Your task to perform on an android device: set default search engine in the chrome app Image 0: 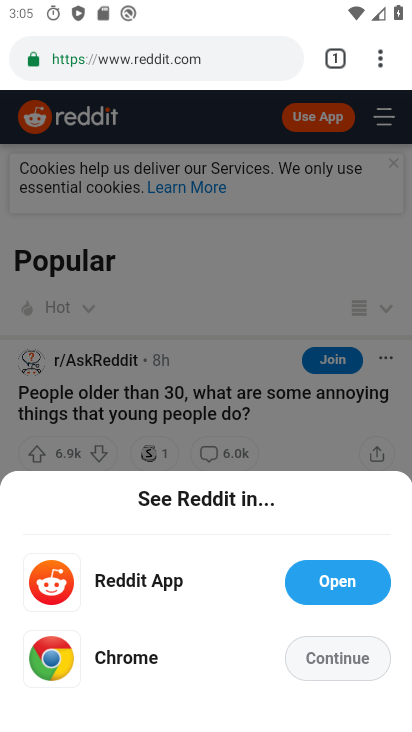
Step 0: press back button
Your task to perform on an android device: set default search engine in the chrome app Image 1: 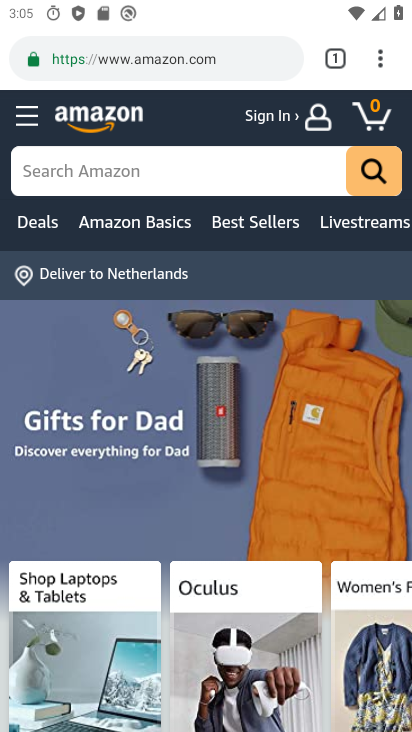
Step 1: drag from (377, 56) to (178, 648)
Your task to perform on an android device: set default search engine in the chrome app Image 2: 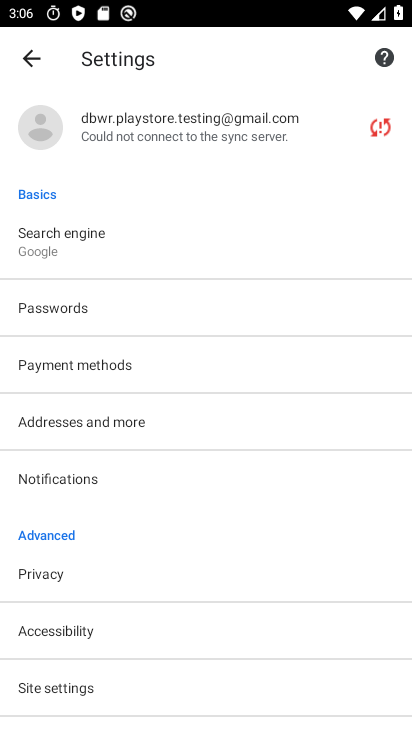
Step 2: click (115, 241)
Your task to perform on an android device: set default search engine in the chrome app Image 3: 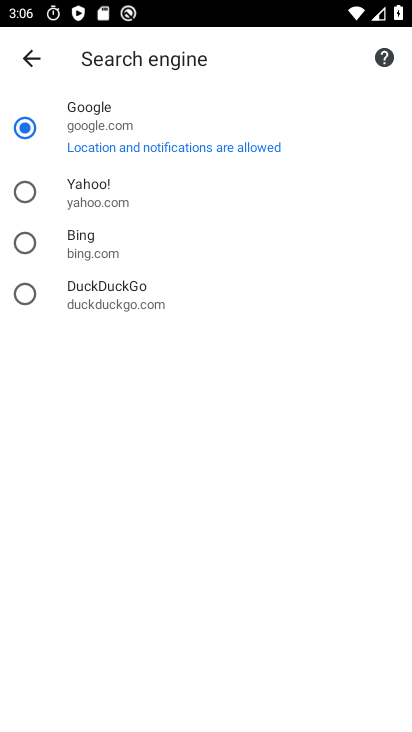
Step 3: task complete